Your task to perform on an android device: Search for Italian restaurants on Maps Image 0: 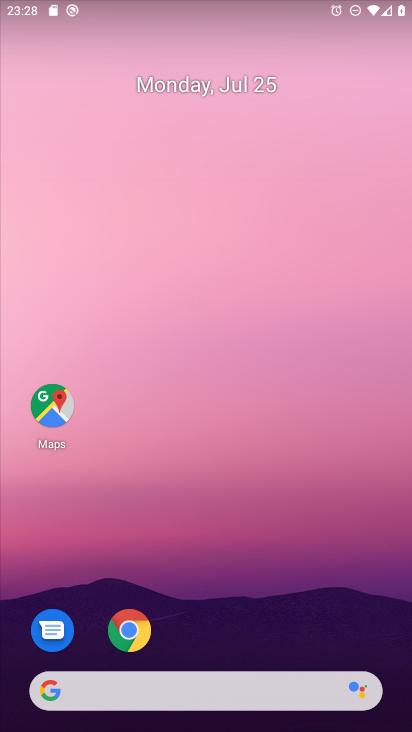
Step 0: drag from (279, 633) to (223, 100)
Your task to perform on an android device: Search for Italian restaurants on Maps Image 1: 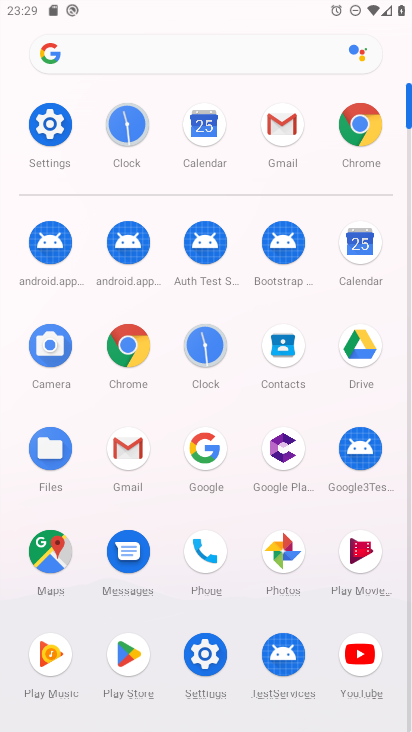
Step 1: click (46, 548)
Your task to perform on an android device: Search for Italian restaurants on Maps Image 2: 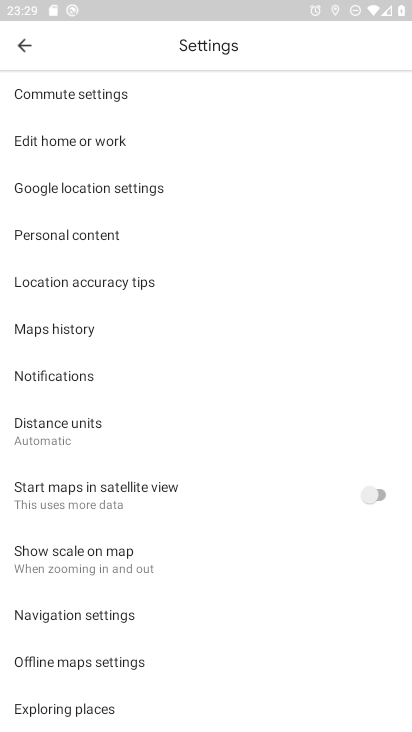
Step 2: click (28, 52)
Your task to perform on an android device: Search for Italian restaurants on Maps Image 3: 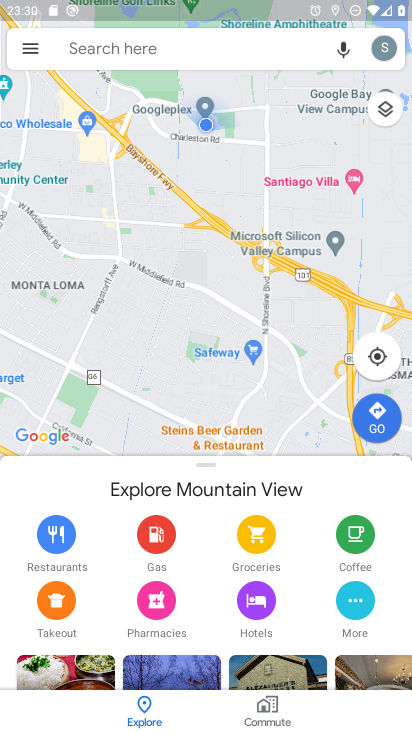
Step 3: click (160, 44)
Your task to perform on an android device: Search for Italian restaurants on Maps Image 4: 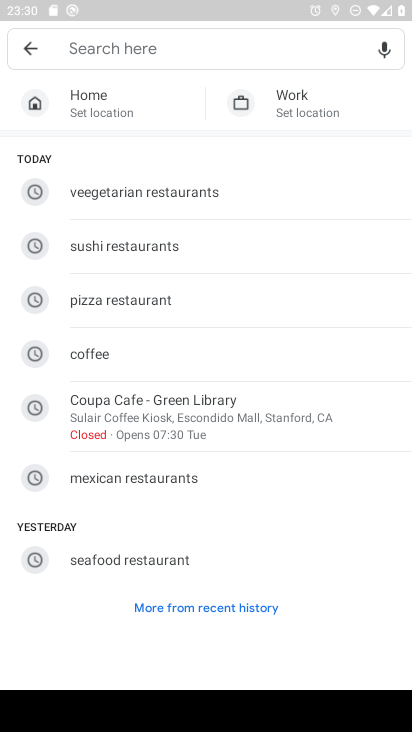
Step 4: type "Italian restaurants"
Your task to perform on an android device: Search for Italian restaurants on Maps Image 5: 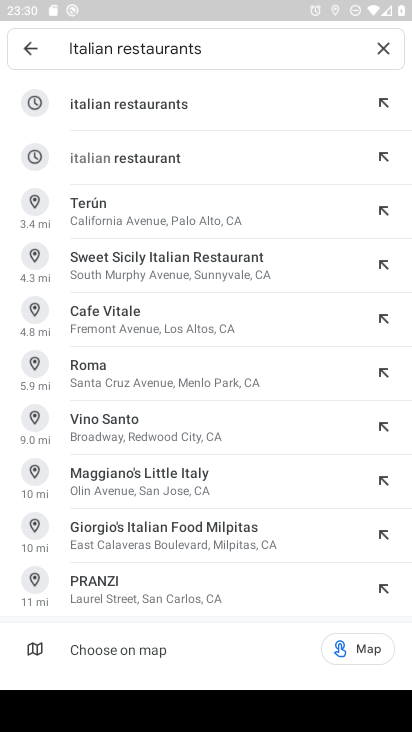
Step 5: click (173, 106)
Your task to perform on an android device: Search for Italian restaurants on Maps Image 6: 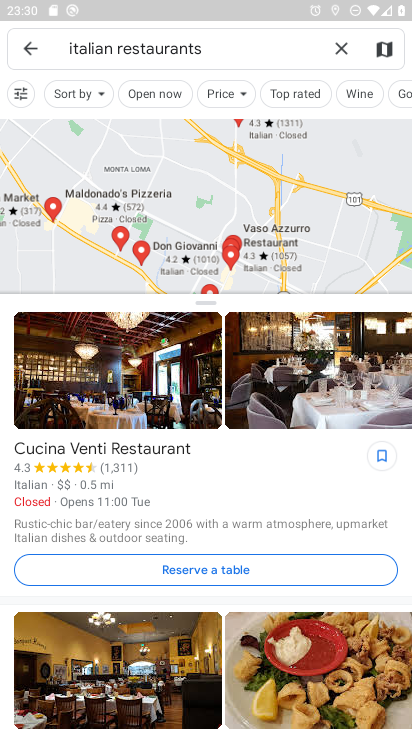
Step 6: task complete